Your task to perform on an android device: check storage Image 0: 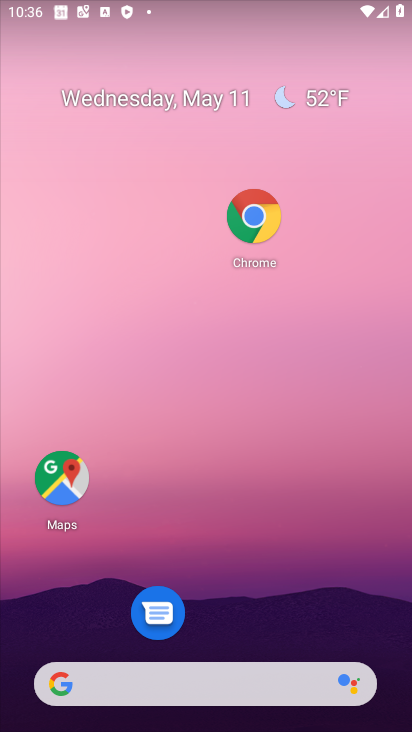
Step 0: drag from (277, 573) to (131, 125)
Your task to perform on an android device: check storage Image 1: 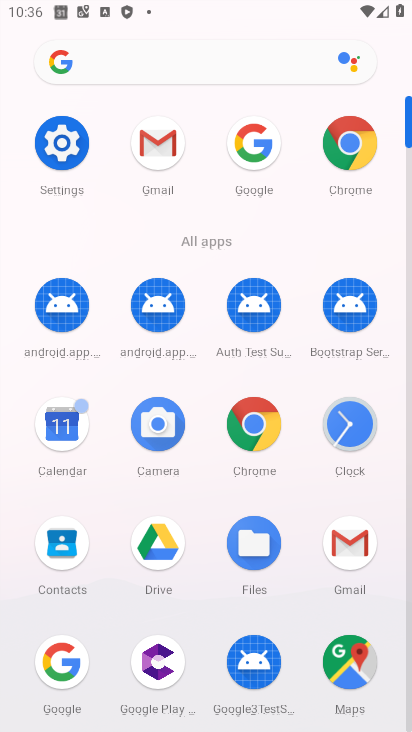
Step 1: click (80, 157)
Your task to perform on an android device: check storage Image 2: 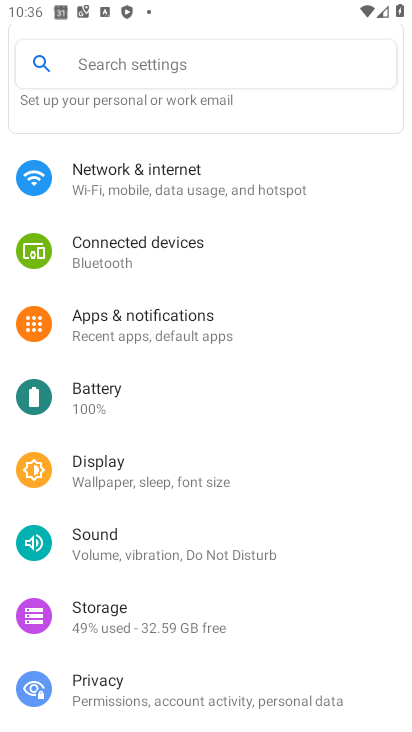
Step 2: click (190, 620)
Your task to perform on an android device: check storage Image 3: 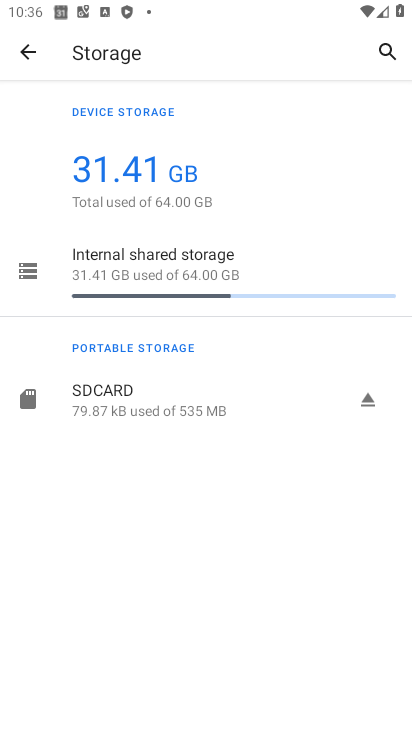
Step 3: click (219, 294)
Your task to perform on an android device: check storage Image 4: 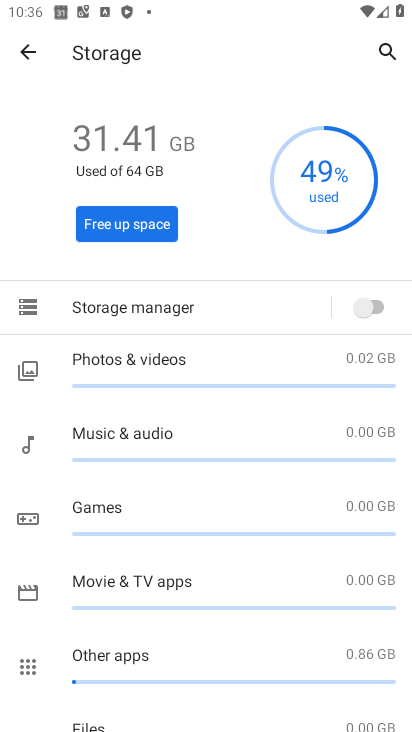
Step 4: task complete